Your task to perform on an android device: delete location history Image 0: 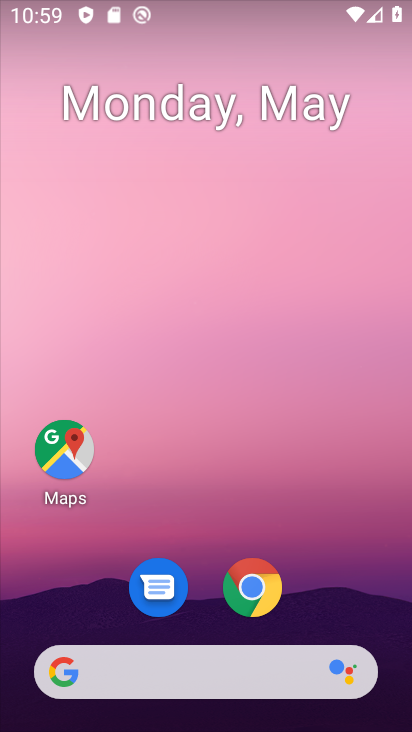
Step 0: click (155, 2)
Your task to perform on an android device: delete location history Image 1: 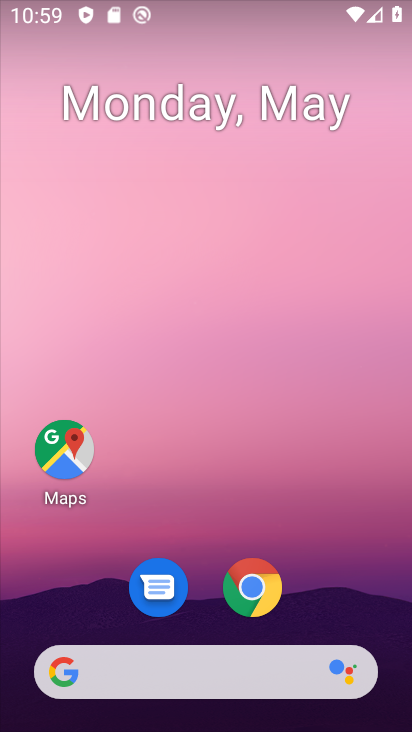
Step 1: drag from (250, 696) to (124, 35)
Your task to perform on an android device: delete location history Image 2: 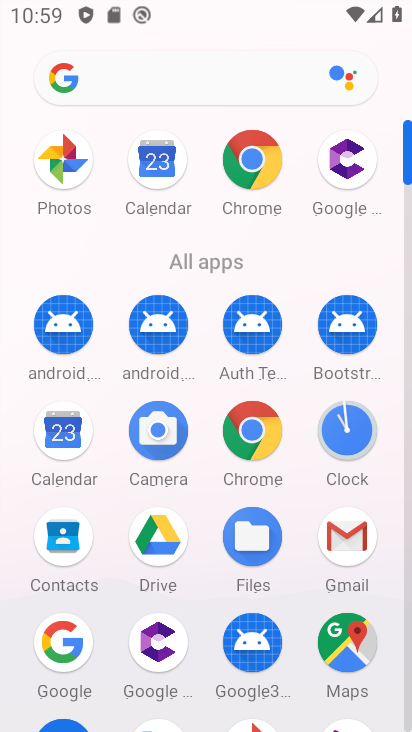
Step 2: drag from (208, 606) to (164, 94)
Your task to perform on an android device: delete location history Image 3: 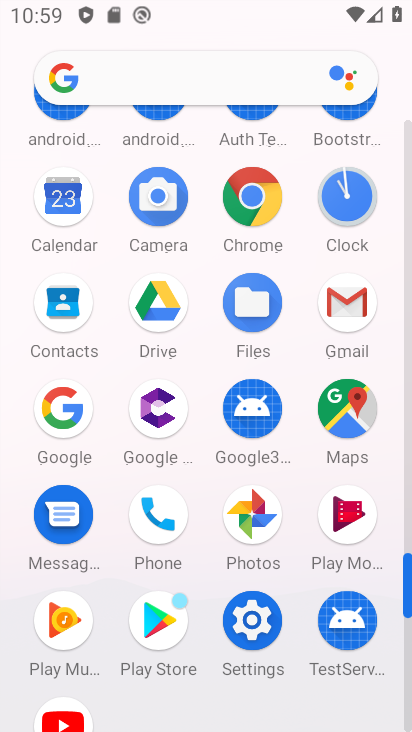
Step 3: drag from (207, 554) to (151, 75)
Your task to perform on an android device: delete location history Image 4: 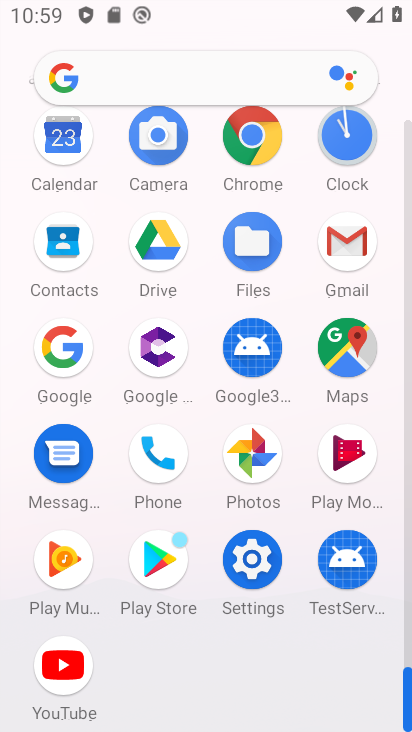
Step 4: click (255, 568)
Your task to perform on an android device: delete location history Image 5: 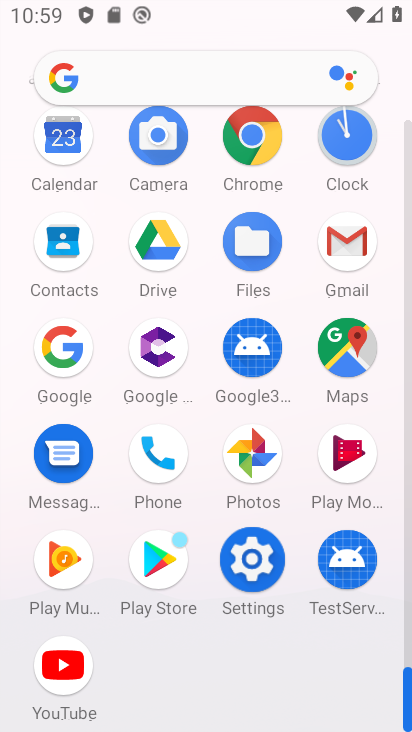
Step 5: click (255, 568)
Your task to perform on an android device: delete location history Image 6: 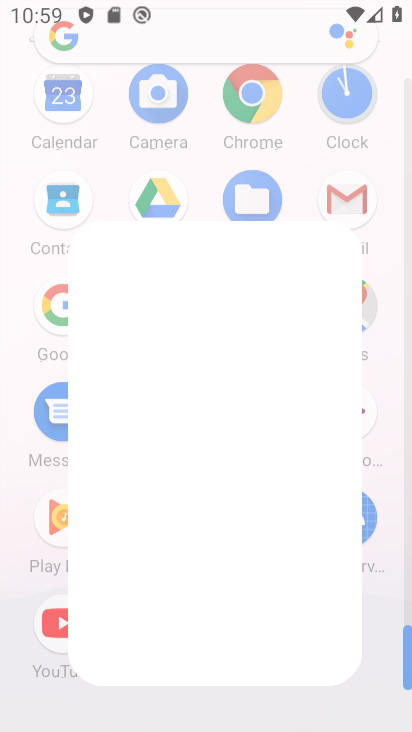
Step 6: click (259, 565)
Your task to perform on an android device: delete location history Image 7: 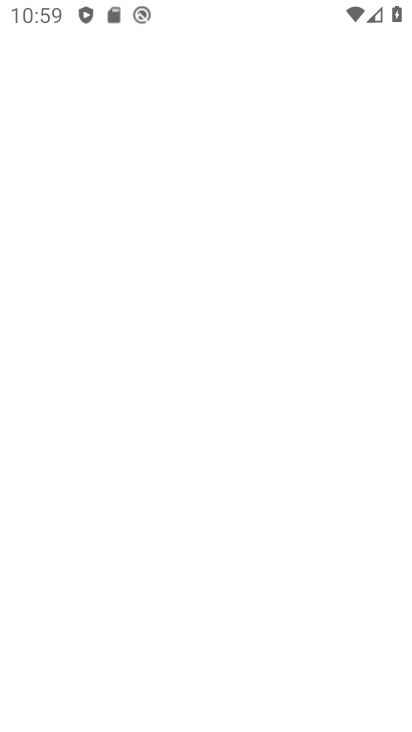
Step 7: click (262, 562)
Your task to perform on an android device: delete location history Image 8: 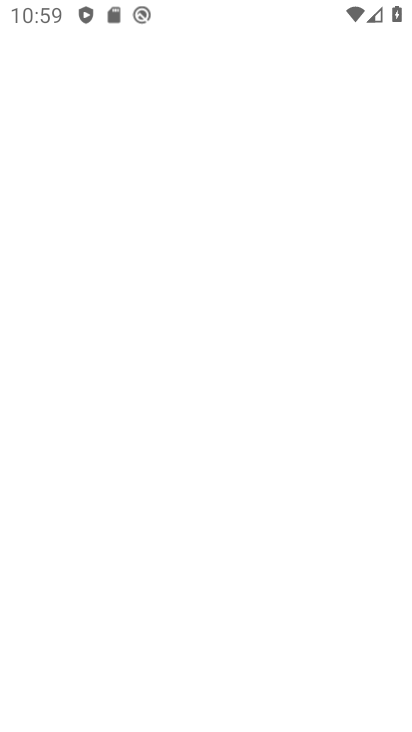
Step 8: click (263, 562)
Your task to perform on an android device: delete location history Image 9: 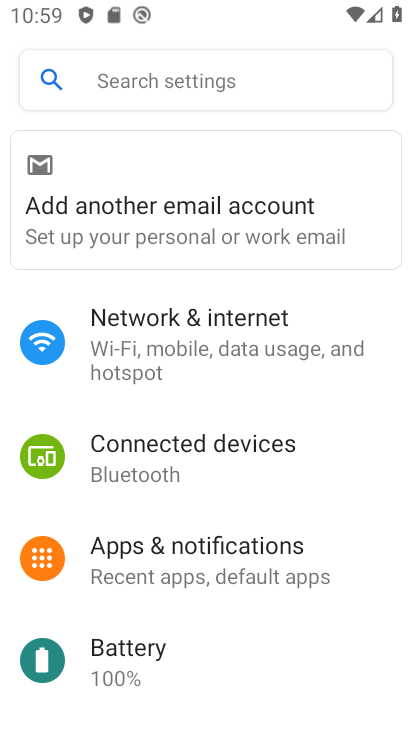
Step 9: drag from (163, 579) to (118, 151)
Your task to perform on an android device: delete location history Image 10: 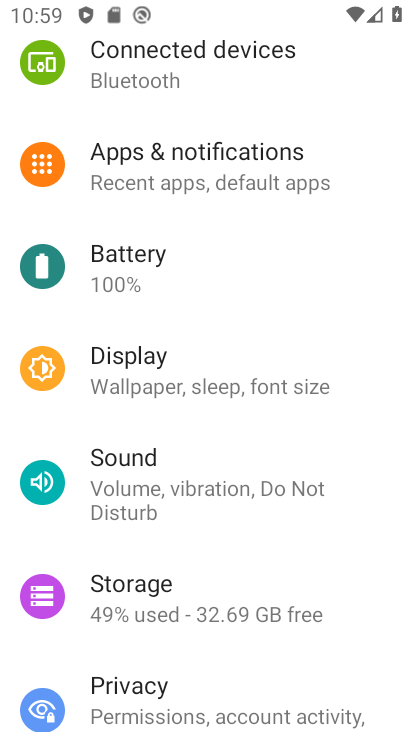
Step 10: drag from (198, 489) to (186, 157)
Your task to perform on an android device: delete location history Image 11: 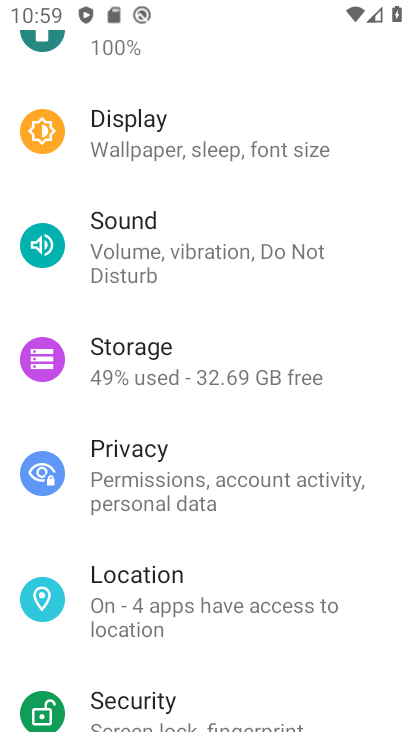
Step 11: click (132, 605)
Your task to perform on an android device: delete location history Image 12: 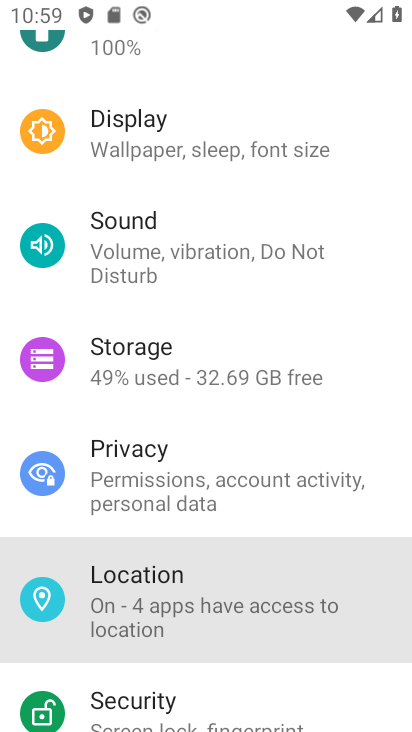
Step 12: click (131, 601)
Your task to perform on an android device: delete location history Image 13: 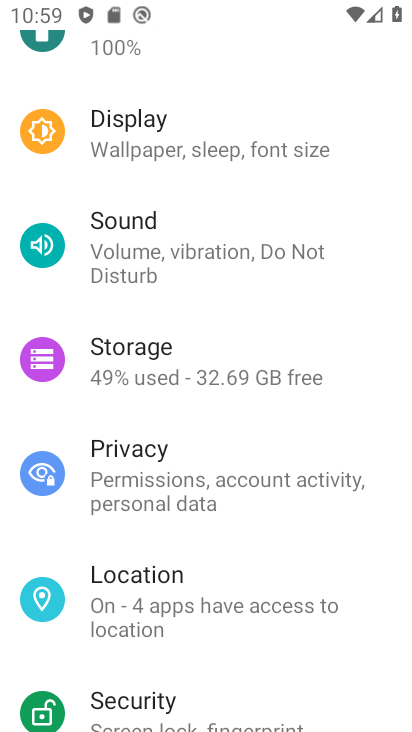
Step 13: click (131, 601)
Your task to perform on an android device: delete location history Image 14: 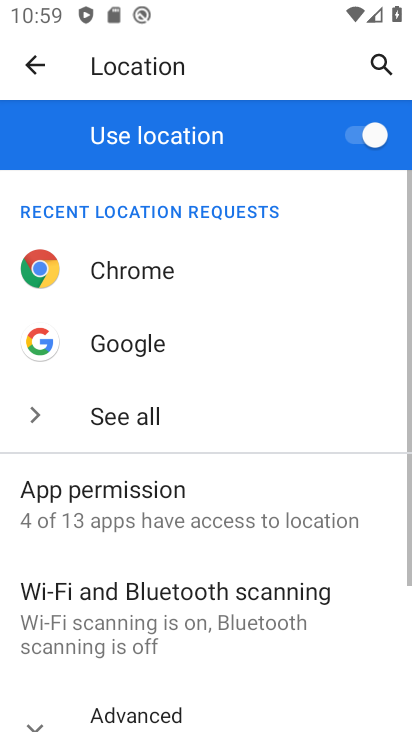
Step 14: drag from (153, 594) to (139, 164)
Your task to perform on an android device: delete location history Image 15: 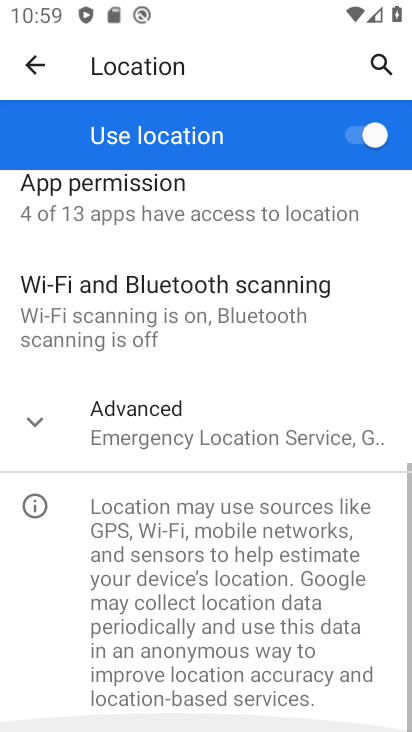
Step 15: drag from (229, 492) to (229, 215)
Your task to perform on an android device: delete location history Image 16: 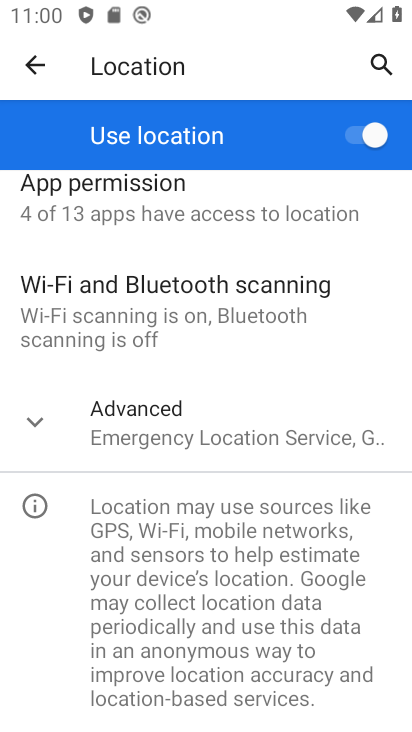
Step 16: click (158, 434)
Your task to perform on an android device: delete location history Image 17: 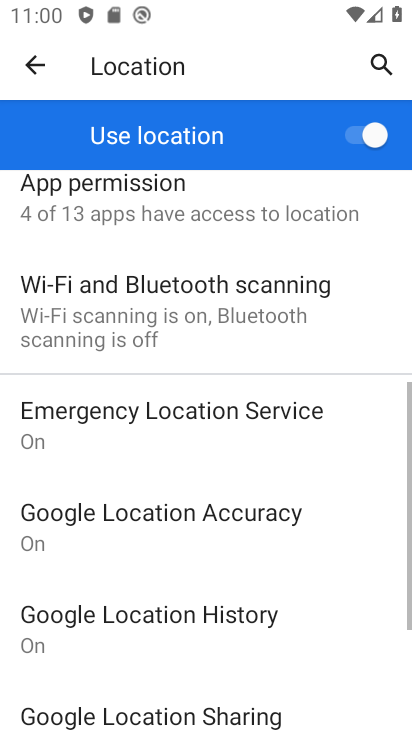
Step 17: drag from (196, 616) to (194, 279)
Your task to perform on an android device: delete location history Image 18: 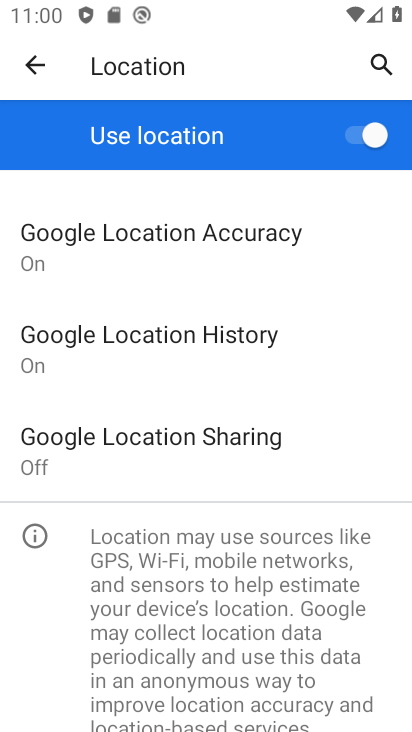
Step 18: click (40, 355)
Your task to perform on an android device: delete location history Image 19: 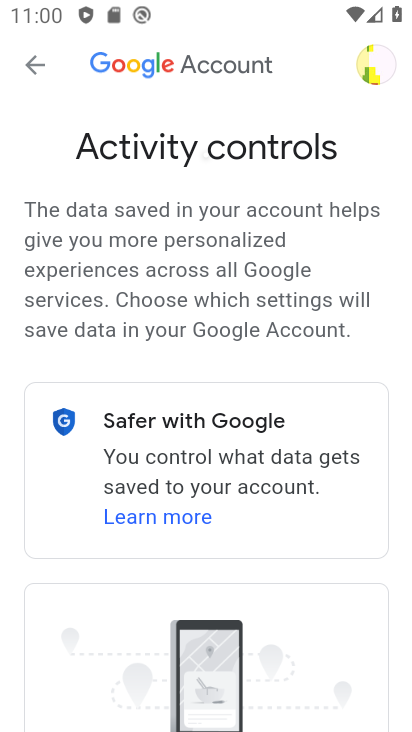
Step 19: drag from (209, 441) to (147, 61)
Your task to perform on an android device: delete location history Image 20: 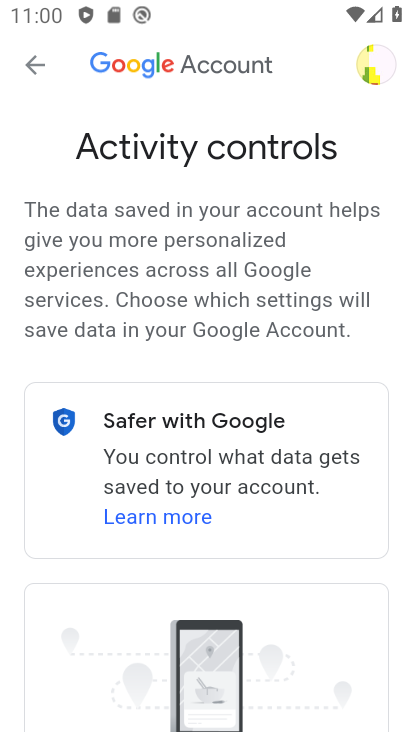
Step 20: drag from (226, 565) to (149, 98)
Your task to perform on an android device: delete location history Image 21: 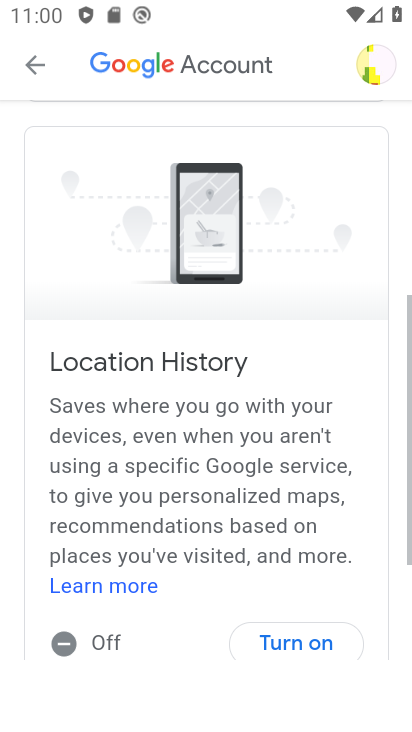
Step 21: drag from (169, 562) to (151, 15)
Your task to perform on an android device: delete location history Image 22: 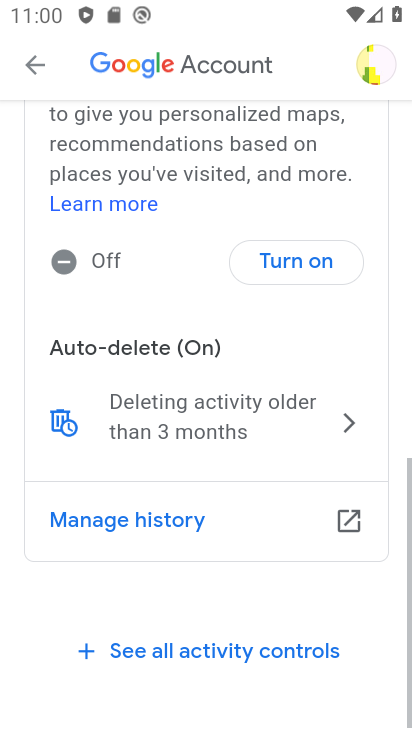
Step 22: drag from (173, 476) to (181, 35)
Your task to perform on an android device: delete location history Image 23: 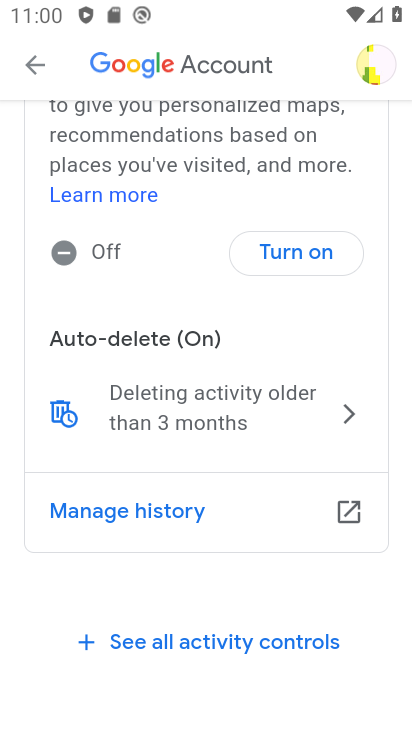
Step 23: click (274, 277)
Your task to perform on an android device: delete location history Image 24: 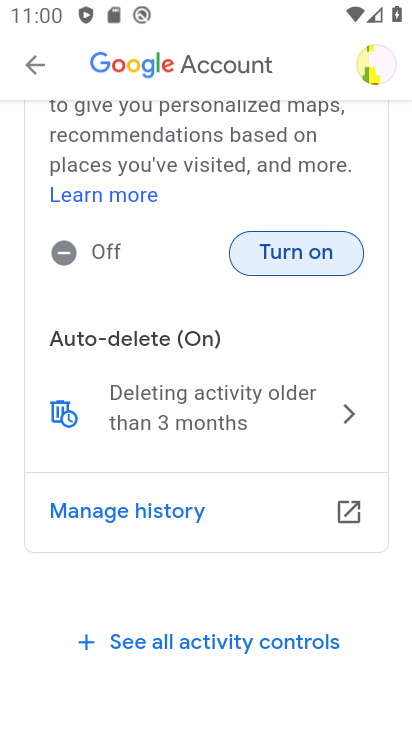
Step 24: click (307, 252)
Your task to perform on an android device: delete location history Image 25: 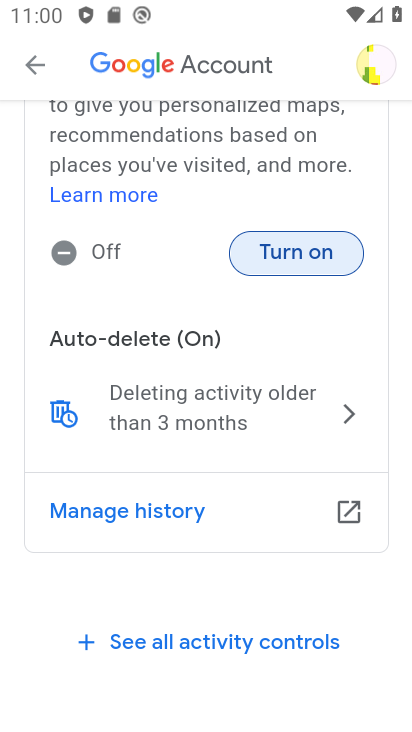
Step 25: click (307, 251)
Your task to perform on an android device: delete location history Image 26: 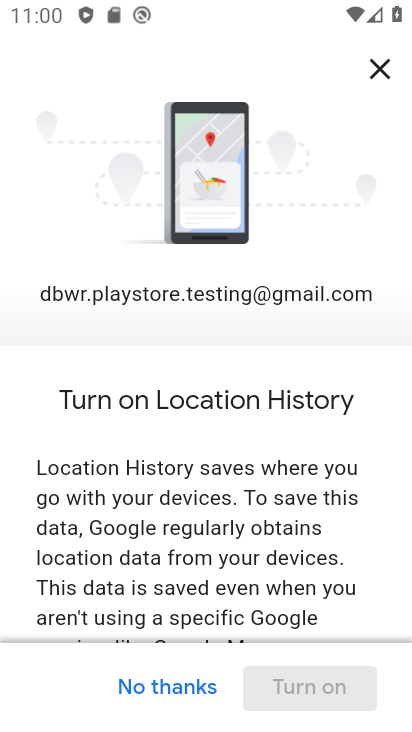
Step 26: task complete